Your task to perform on an android device: Turn off the flashlight Image 0: 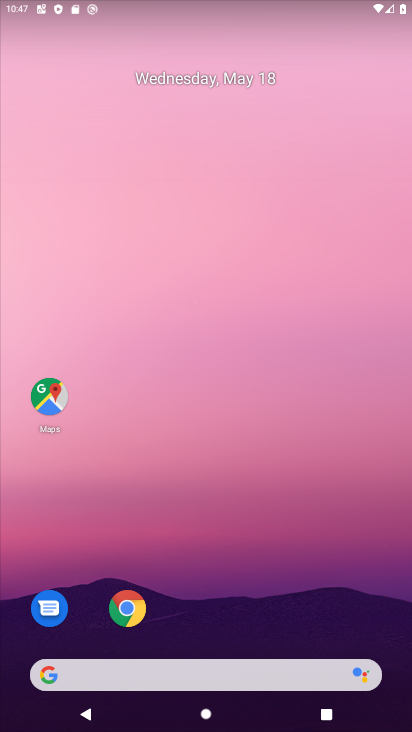
Step 0: press home button
Your task to perform on an android device: Turn off the flashlight Image 1: 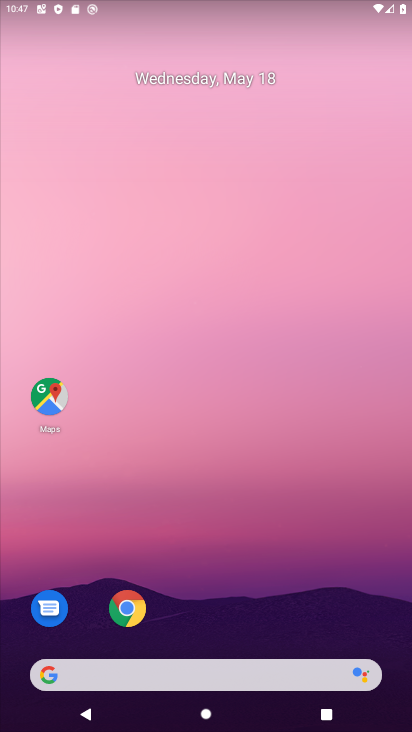
Step 1: task complete